Your task to perform on an android device: turn on showing notifications on the lock screen Image 0: 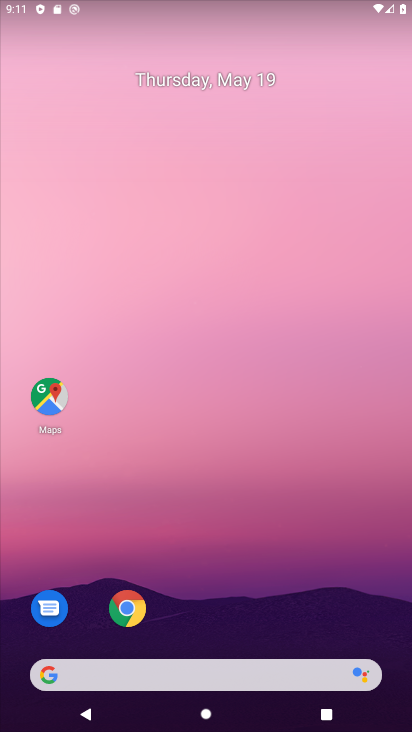
Step 0: drag from (191, 617) to (194, 241)
Your task to perform on an android device: turn on showing notifications on the lock screen Image 1: 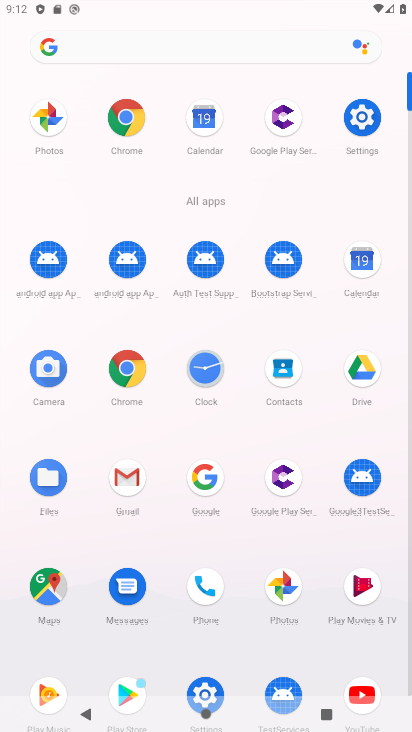
Step 1: click (359, 109)
Your task to perform on an android device: turn on showing notifications on the lock screen Image 2: 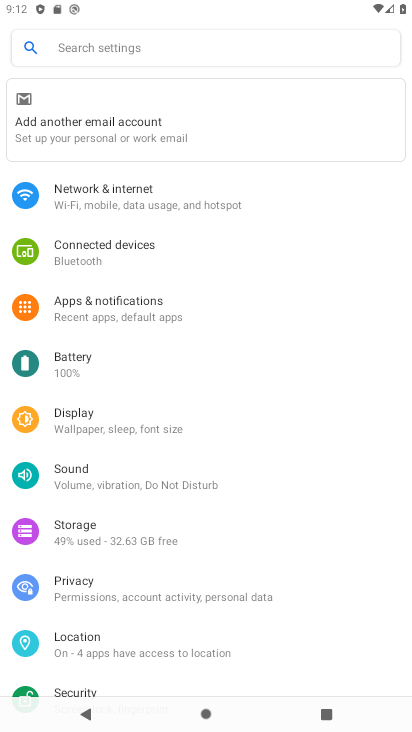
Step 2: click (112, 307)
Your task to perform on an android device: turn on showing notifications on the lock screen Image 3: 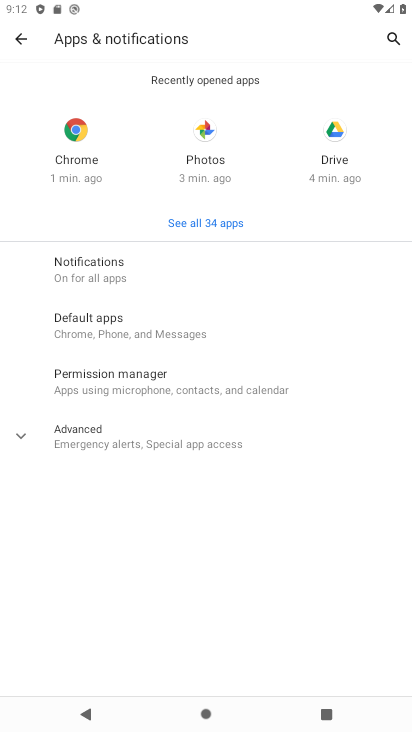
Step 3: click (146, 290)
Your task to perform on an android device: turn on showing notifications on the lock screen Image 4: 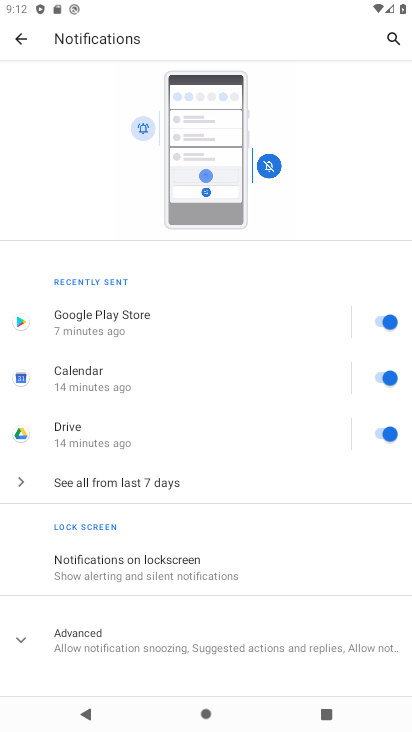
Step 4: click (167, 567)
Your task to perform on an android device: turn on showing notifications on the lock screen Image 5: 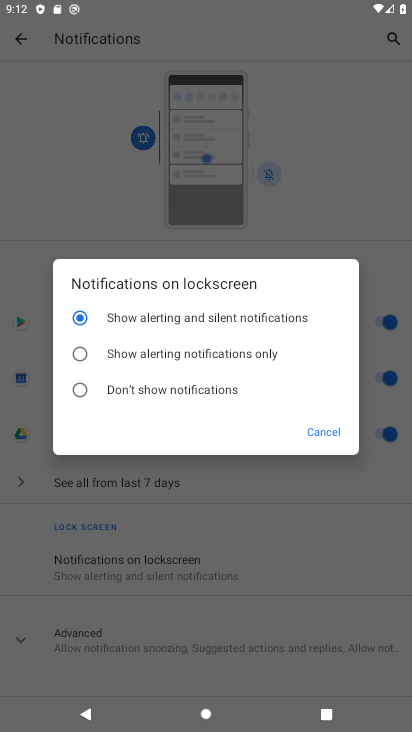
Step 5: task complete